Your task to perform on an android device: add a label to a message in the gmail app Image 0: 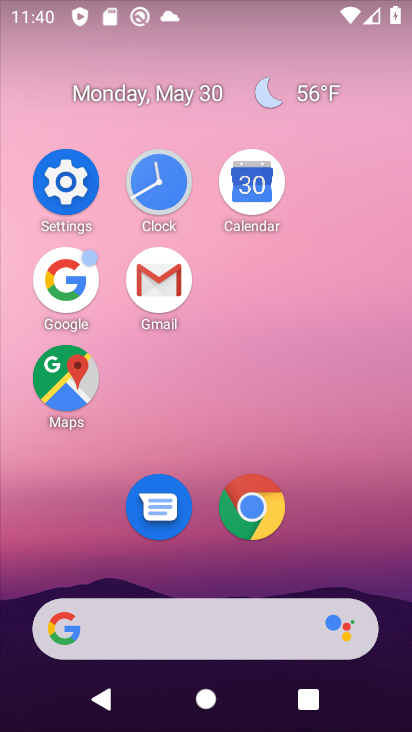
Step 0: click (160, 288)
Your task to perform on an android device: add a label to a message in the gmail app Image 1: 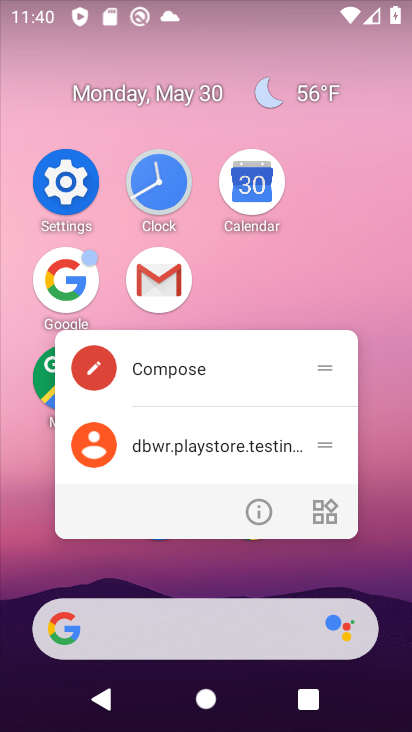
Step 1: click (175, 290)
Your task to perform on an android device: add a label to a message in the gmail app Image 2: 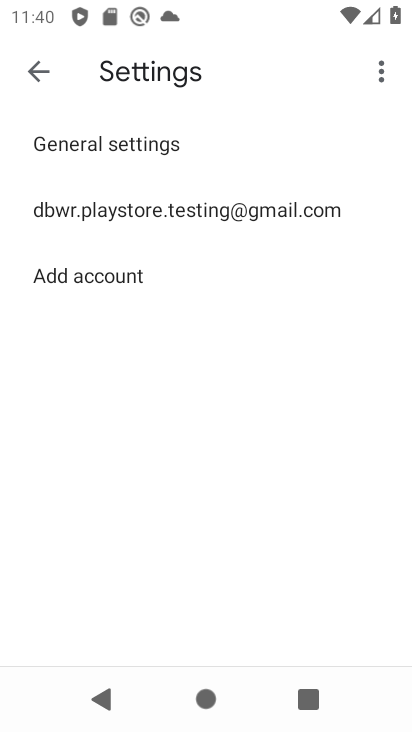
Step 2: click (35, 73)
Your task to perform on an android device: add a label to a message in the gmail app Image 3: 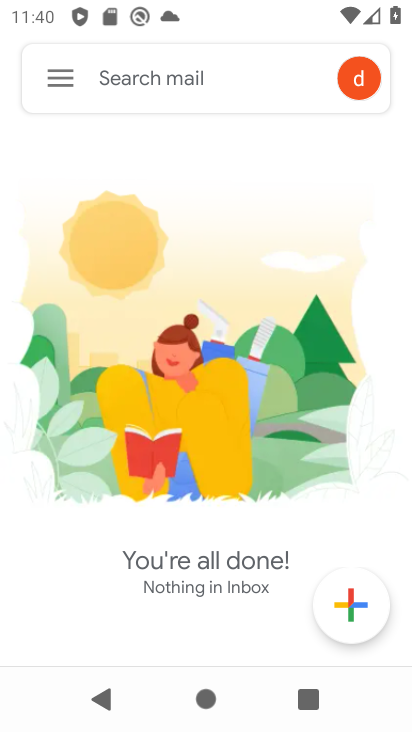
Step 3: click (47, 84)
Your task to perform on an android device: add a label to a message in the gmail app Image 4: 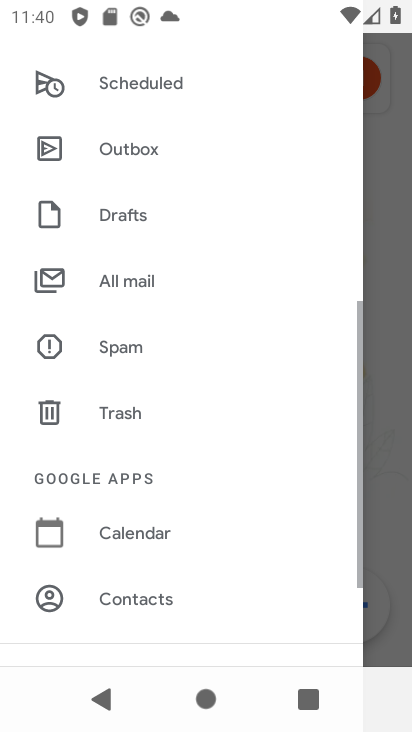
Step 4: click (190, 287)
Your task to perform on an android device: add a label to a message in the gmail app Image 5: 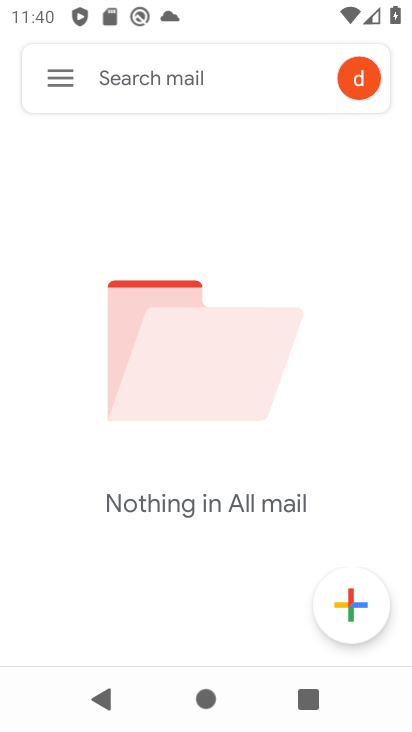
Step 5: task complete